Your task to perform on an android device: turn on notifications settings in the gmail app Image 0: 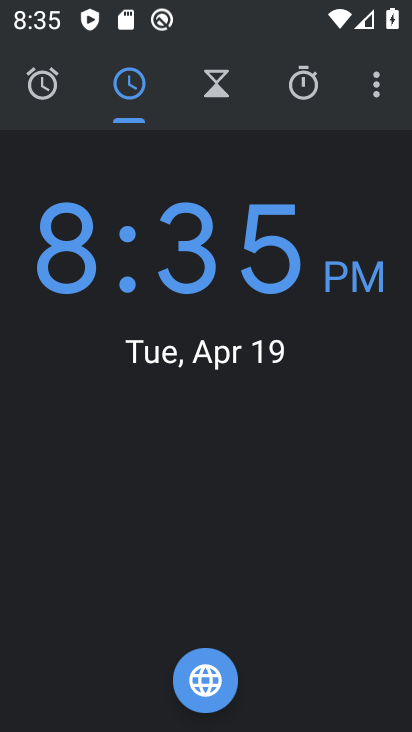
Step 0: press back button
Your task to perform on an android device: turn on notifications settings in the gmail app Image 1: 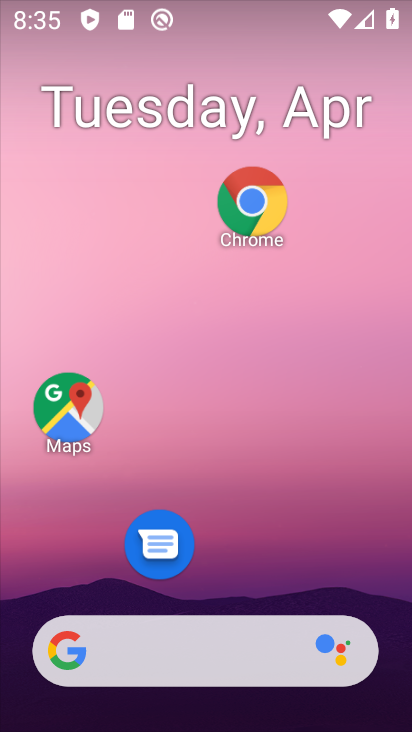
Step 1: drag from (207, 469) to (299, 173)
Your task to perform on an android device: turn on notifications settings in the gmail app Image 2: 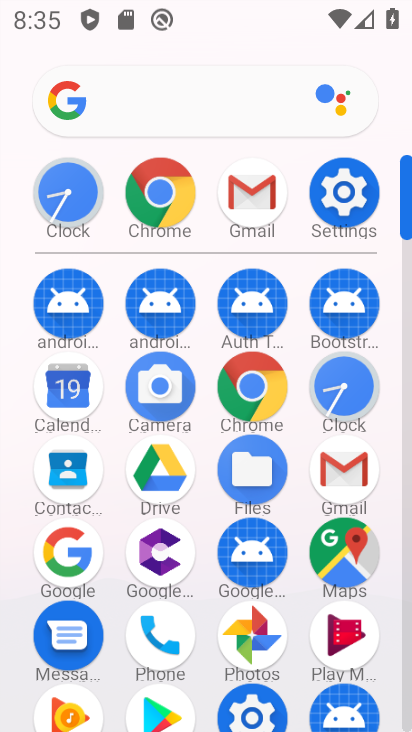
Step 2: click (248, 180)
Your task to perform on an android device: turn on notifications settings in the gmail app Image 3: 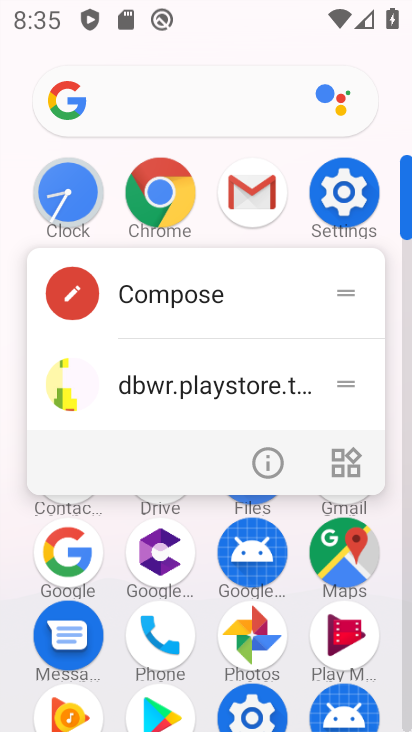
Step 3: click (262, 464)
Your task to perform on an android device: turn on notifications settings in the gmail app Image 4: 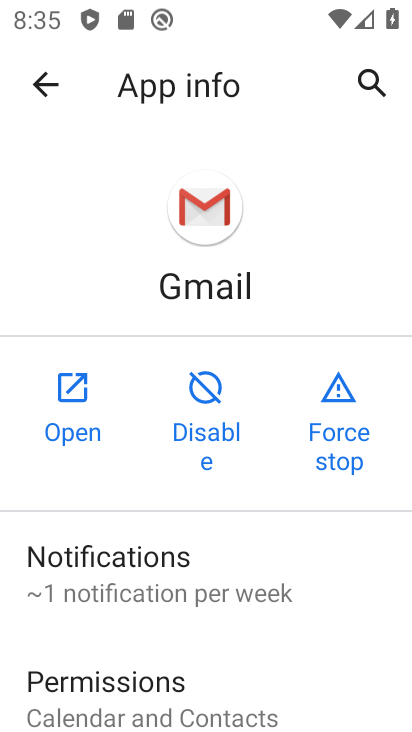
Step 4: click (160, 566)
Your task to perform on an android device: turn on notifications settings in the gmail app Image 5: 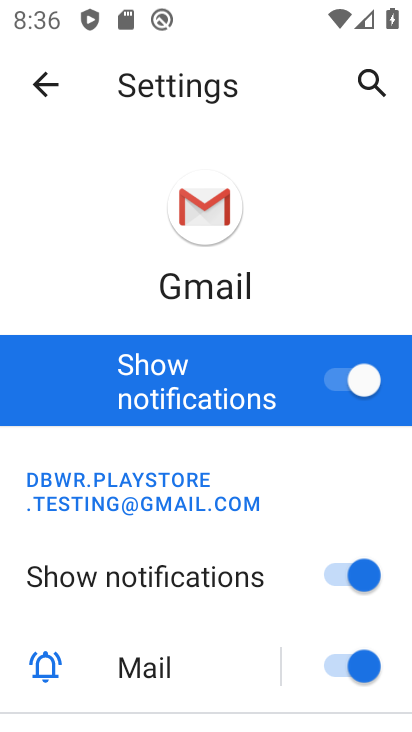
Step 5: task complete